Your task to perform on an android device: choose inbox layout in the gmail app Image 0: 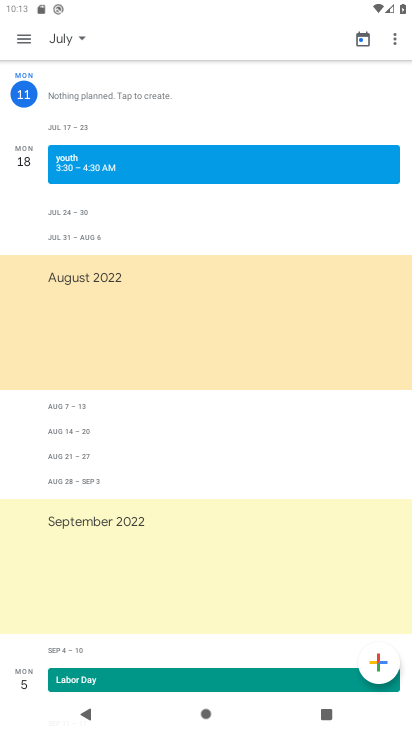
Step 0: press home button
Your task to perform on an android device: choose inbox layout in the gmail app Image 1: 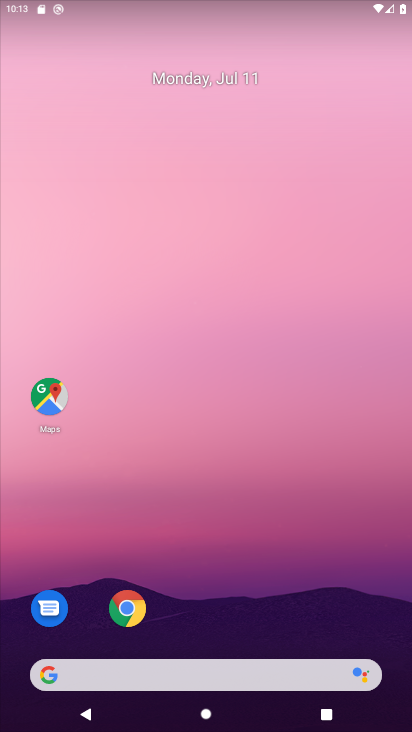
Step 1: drag from (185, 649) to (226, 420)
Your task to perform on an android device: choose inbox layout in the gmail app Image 2: 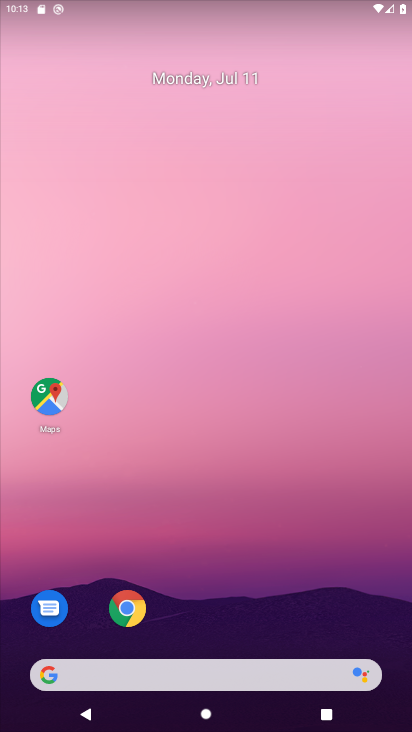
Step 2: drag from (210, 640) to (263, 139)
Your task to perform on an android device: choose inbox layout in the gmail app Image 3: 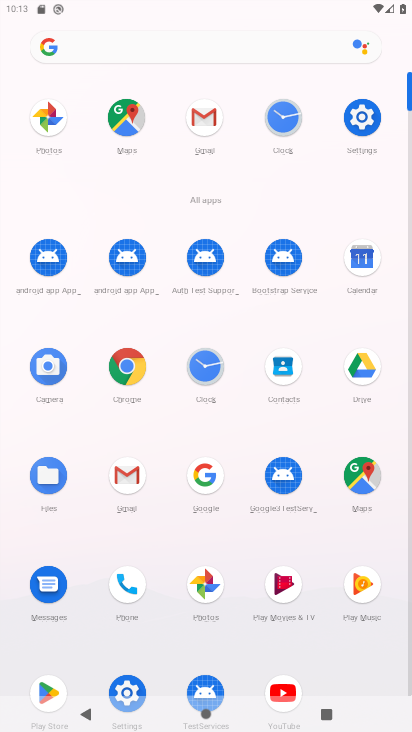
Step 3: click (123, 469)
Your task to perform on an android device: choose inbox layout in the gmail app Image 4: 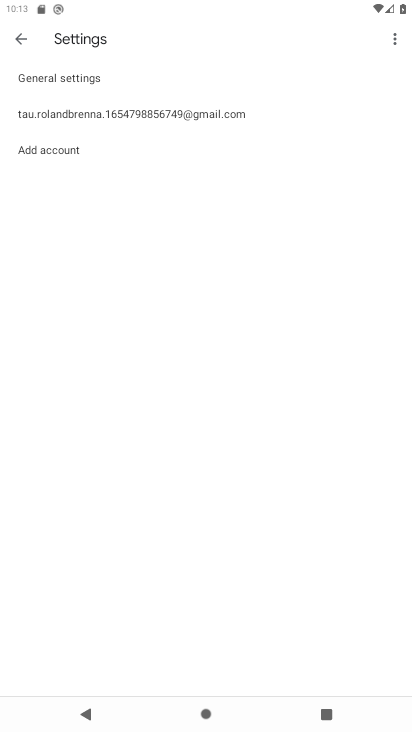
Step 4: click (196, 123)
Your task to perform on an android device: choose inbox layout in the gmail app Image 5: 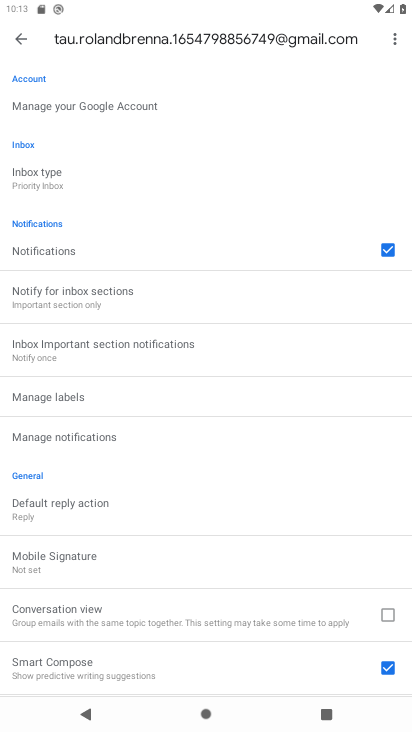
Step 5: drag from (115, 532) to (196, 173)
Your task to perform on an android device: choose inbox layout in the gmail app Image 6: 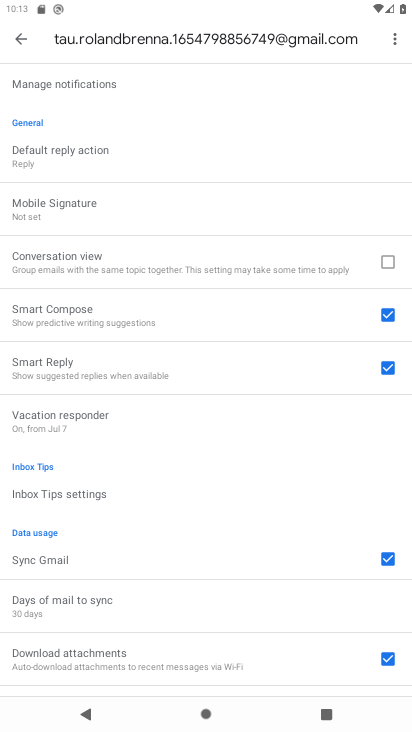
Step 6: drag from (166, 624) to (200, 316)
Your task to perform on an android device: choose inbox layout in the gmail app Image 7: 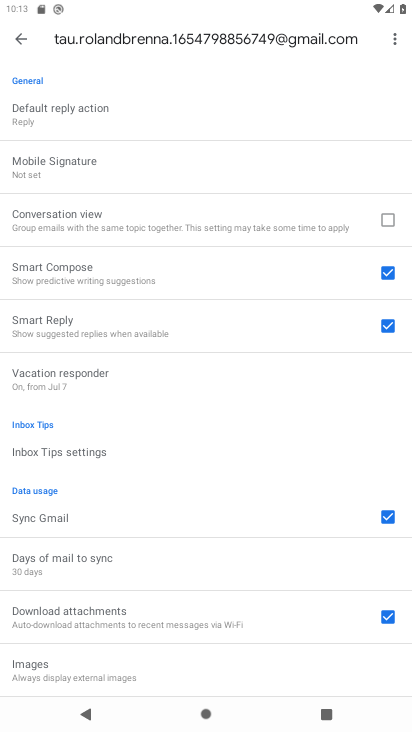
Step 7: drag from (182, 641) to (262, 294)
Your task to perform on an android device: choose inbox layout in the gmail app Image 8: 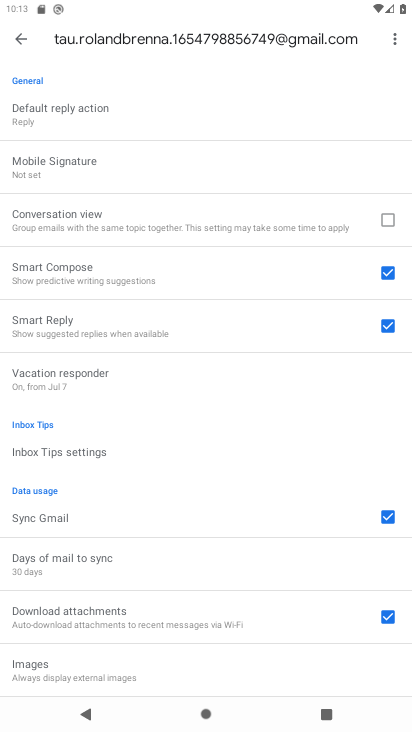
Step 8: drag from (157, 253) to (104, 646)
Your task to perform on an android device: choose inbox layout in the gmail app Image 9: 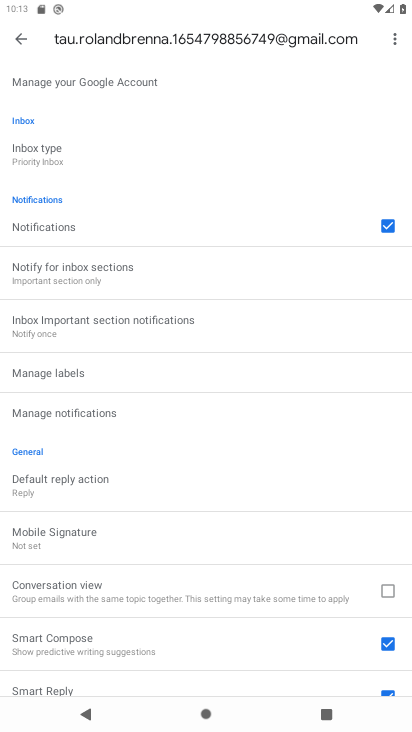
Step 9: click (99, 169)
Your task to perform on an android device: choose inbox layout in the gmail app Image 10: 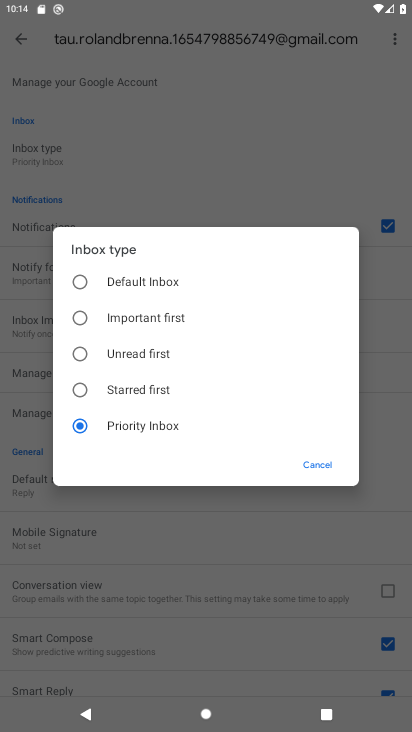
Step 10: click (148, 264)
Your task to perform on an android device: choose inbox layout in the gmail app Image 11: 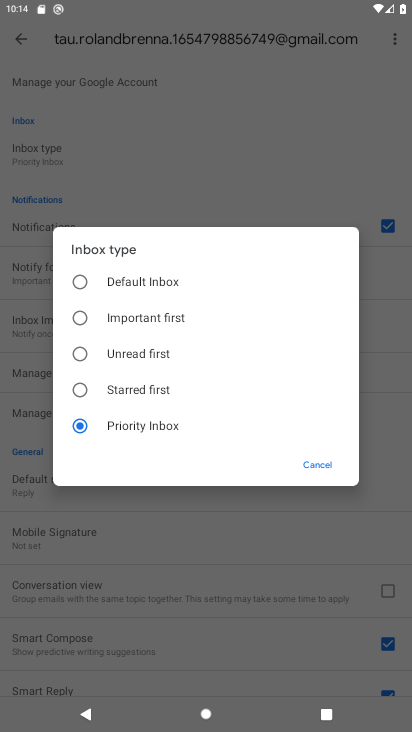
Step 11: click (155, 279)
Your task to perform on an android device: choose inbox layout in the gmail app Image 12: 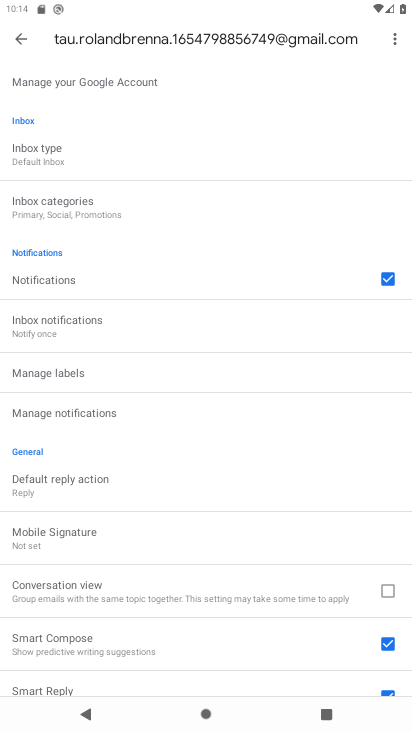
Step 12: task complete